Your task to perform on an android device: change your default location settings in chrome Image 0: 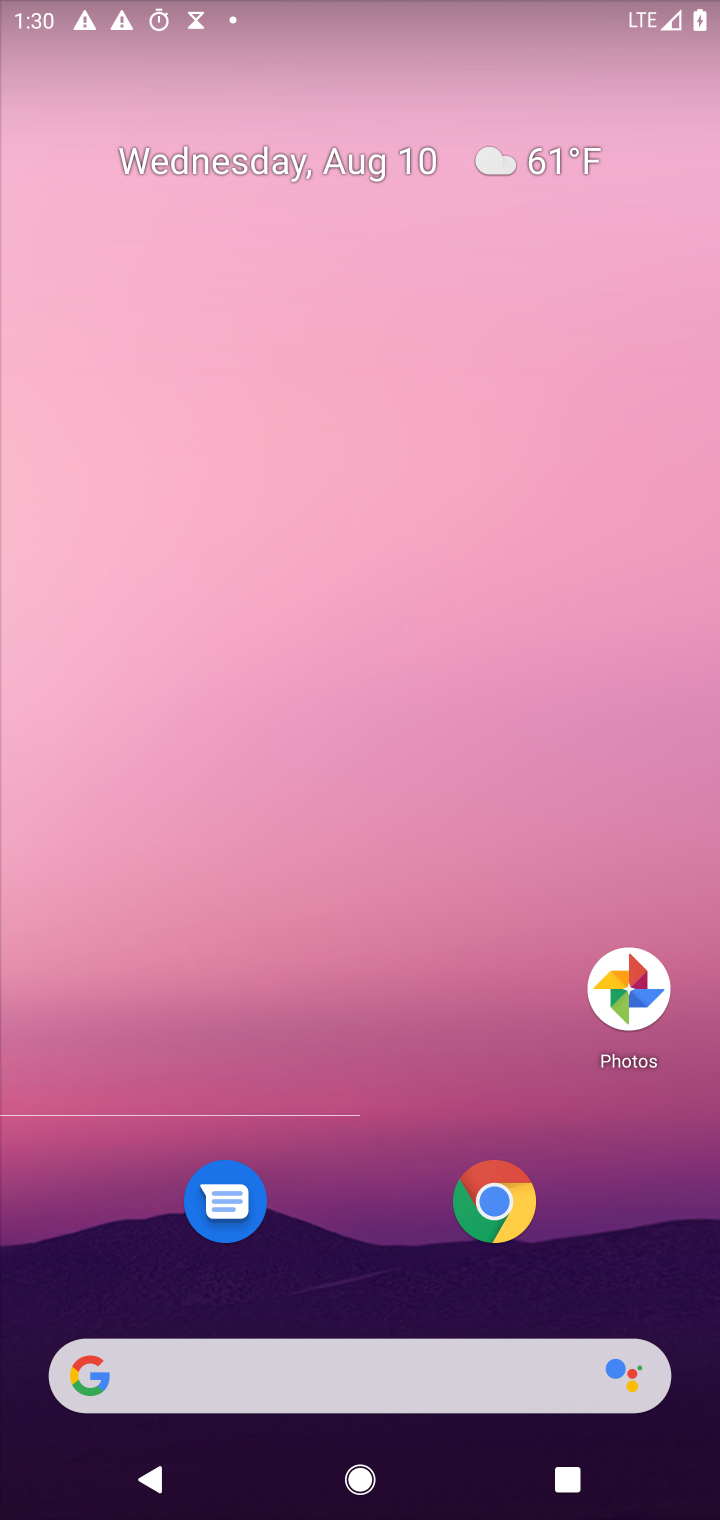
Step 0: press home button
Your task to perform on an android device: change your default location settings in chrome Image 1: 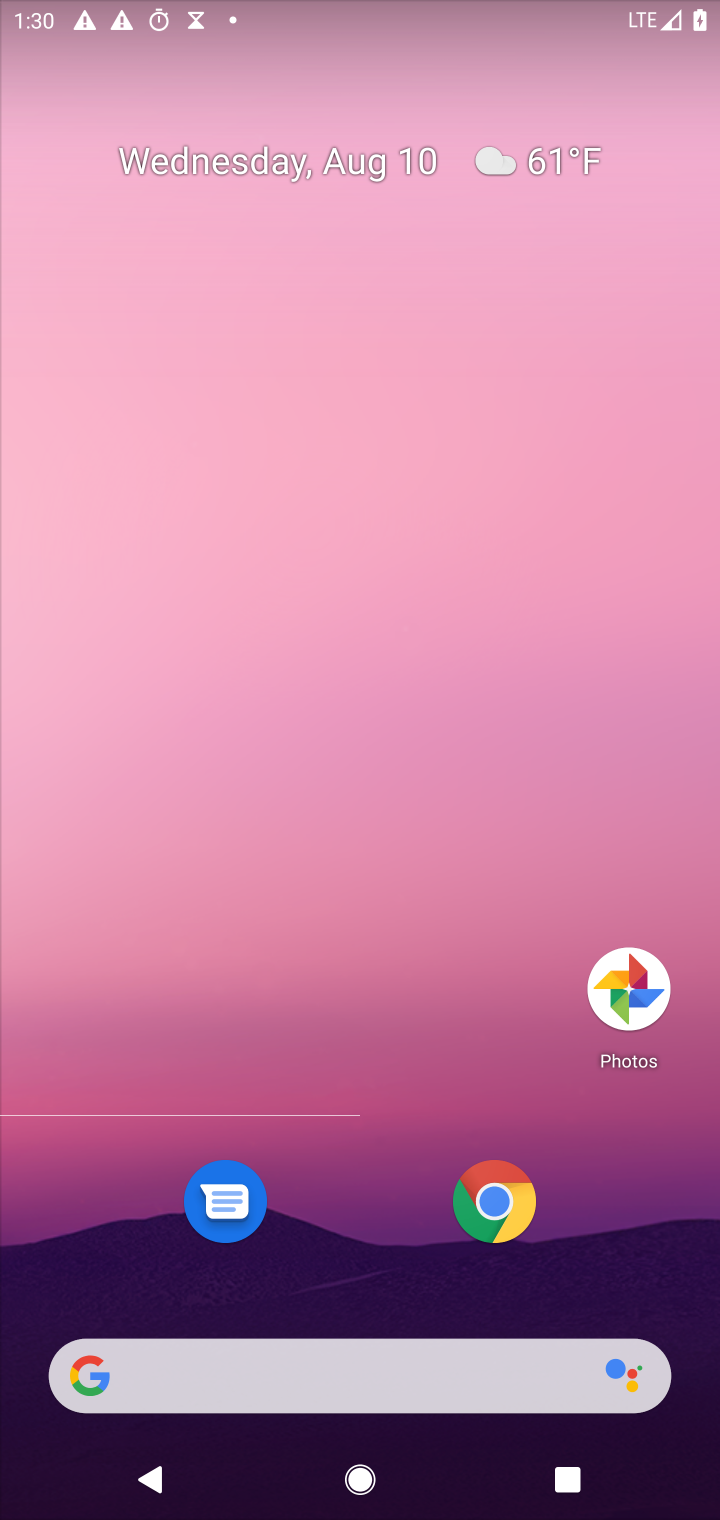
Step 1: click (498, 1198)
Your task to perform on an android device: change your default location settings in chrome Image 2: 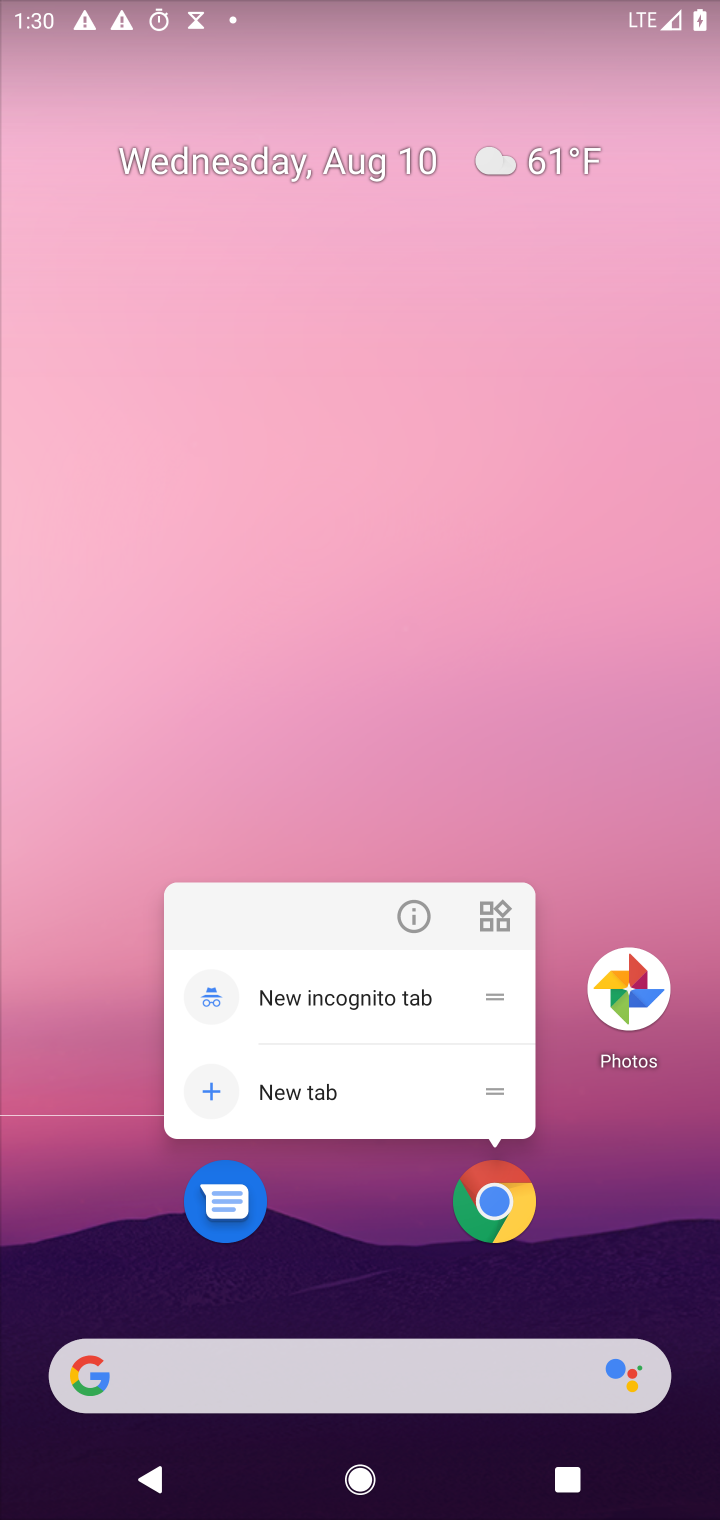
Step 2: click (498, 1198)
Your task to perform on an android device: change your default location settings in chrome Image 3: 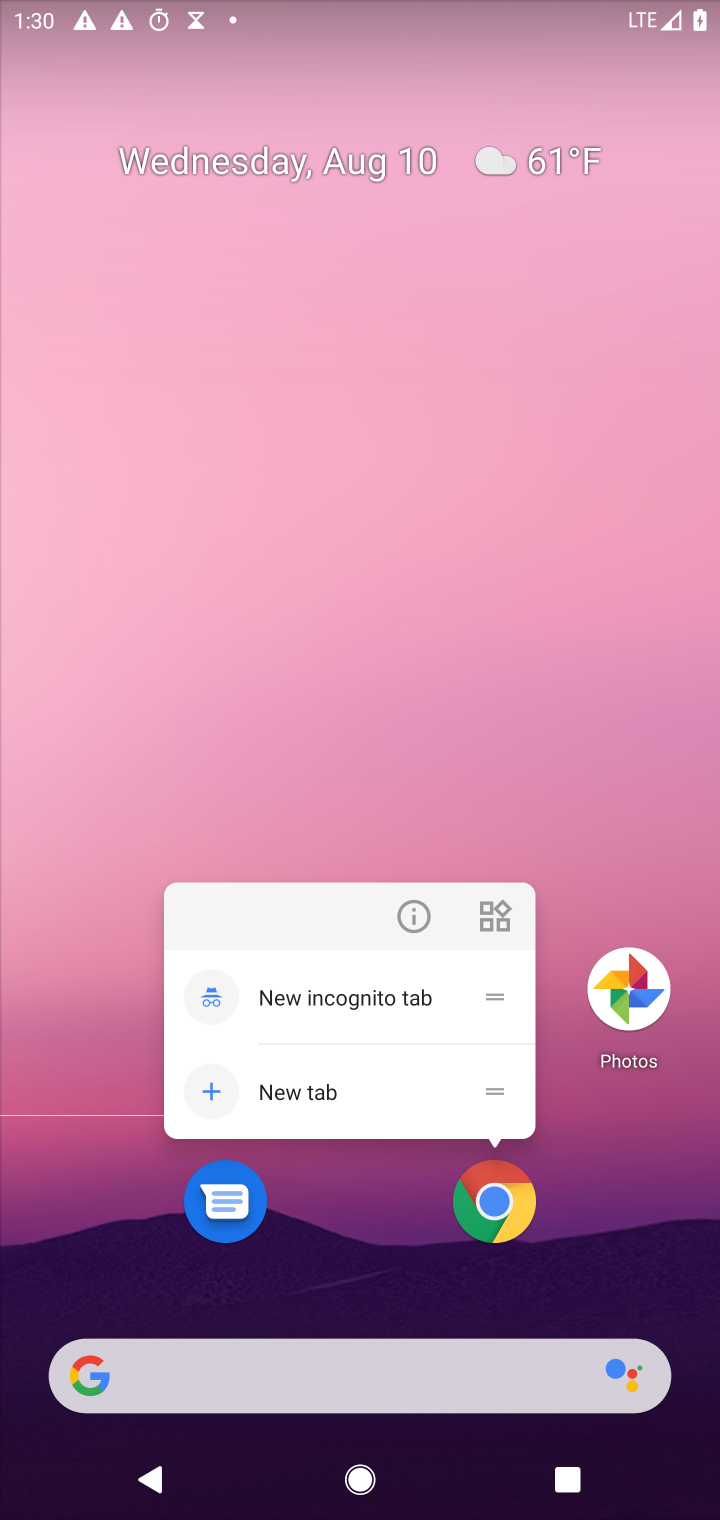
Step 3: click (498, 1198)
Your task to perform on an android device: change your default location settings in chrome Image 4: 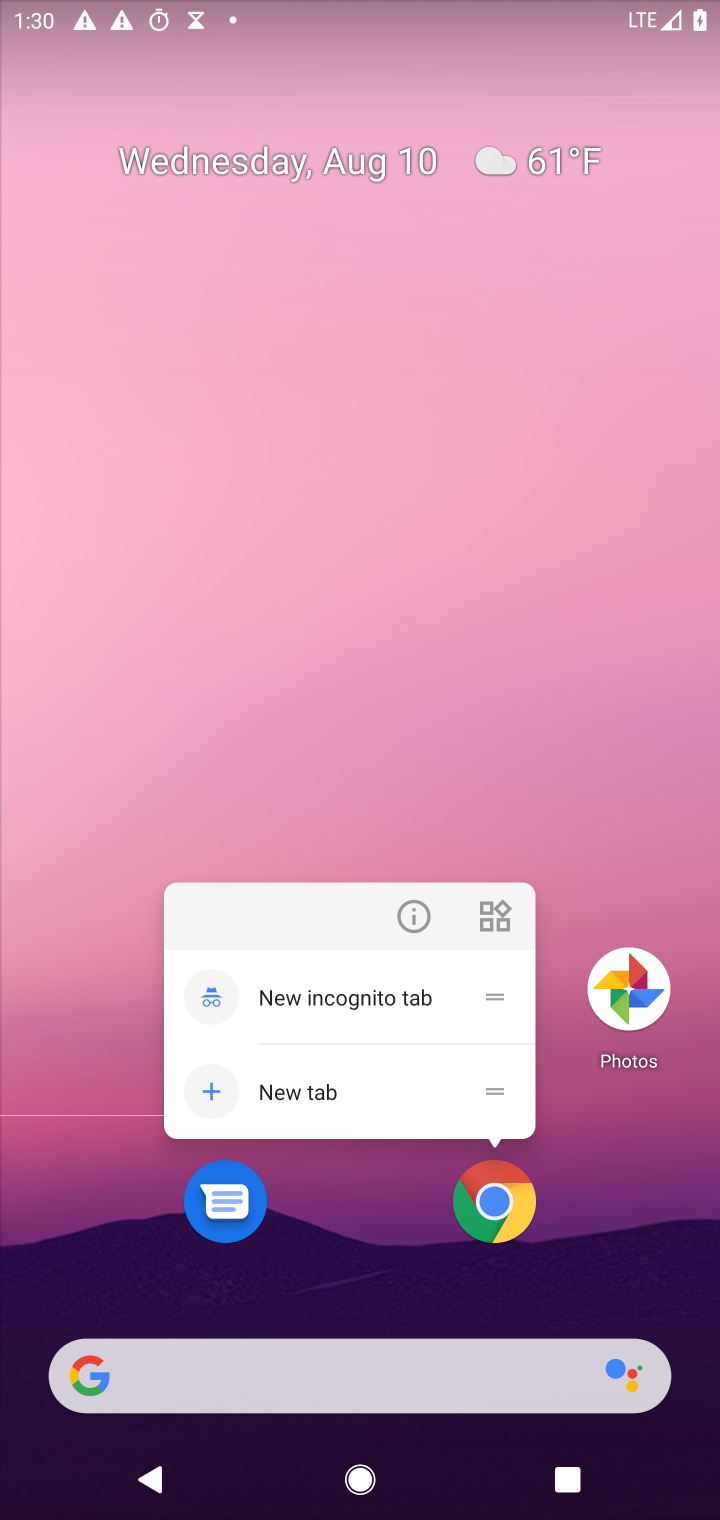
Step 4: click (495, 1216)
Your task to perform on an android device: change your default location settings in chrome Image 5: 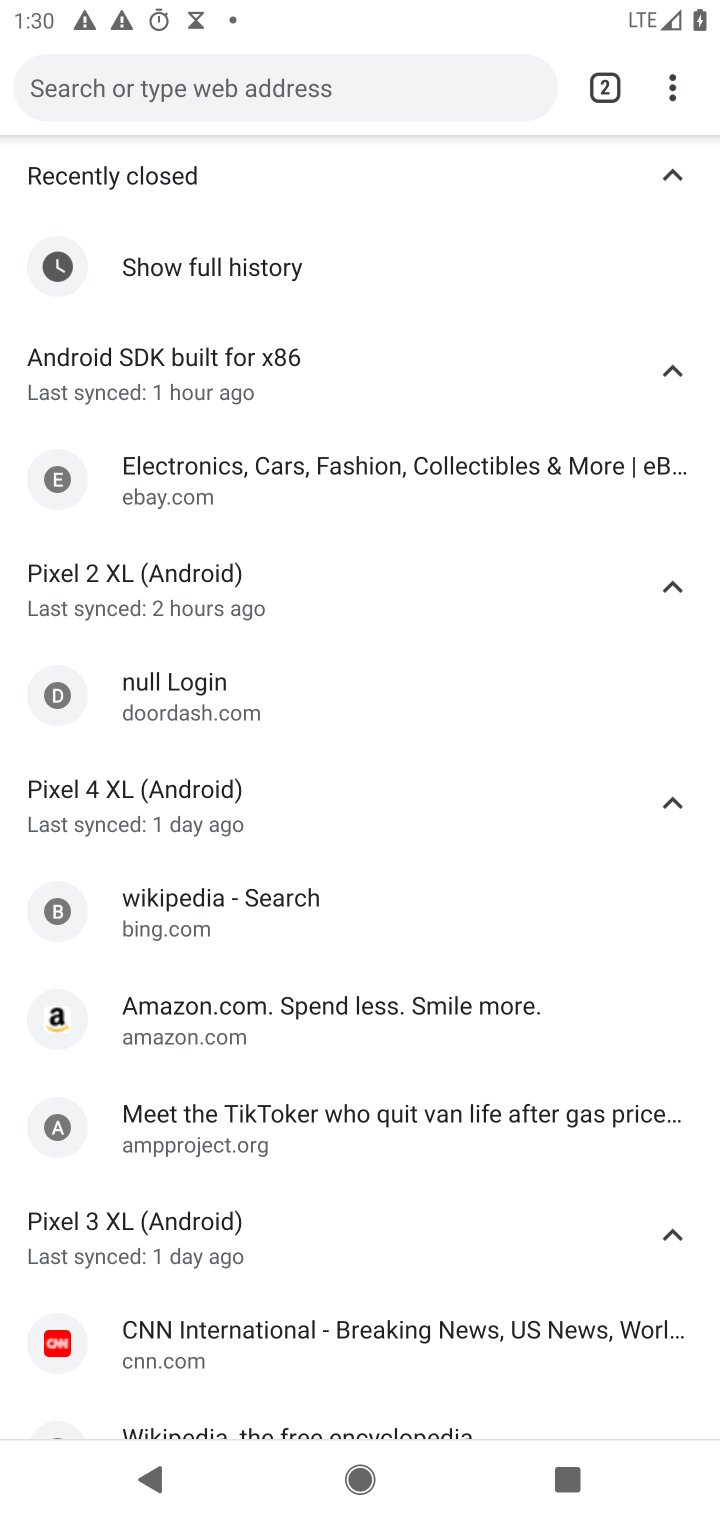
Step 5: drag from (672, 80) to (347, 746)
Your task to perform on an android device: change your default location settings in chrome Image 6: 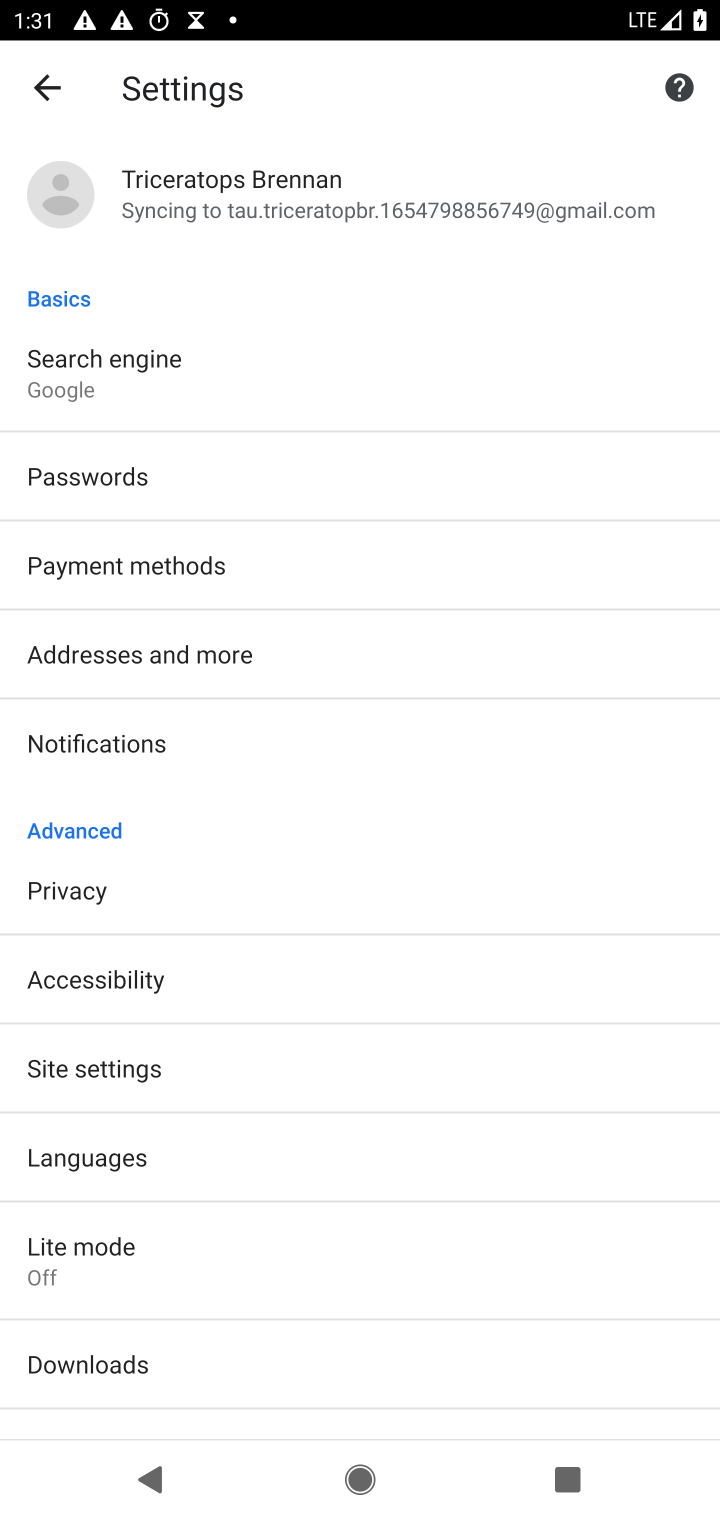
Step 6: click (75, 1063)
Your task to perform on an android device: change your default location settings in chrome Image 7: 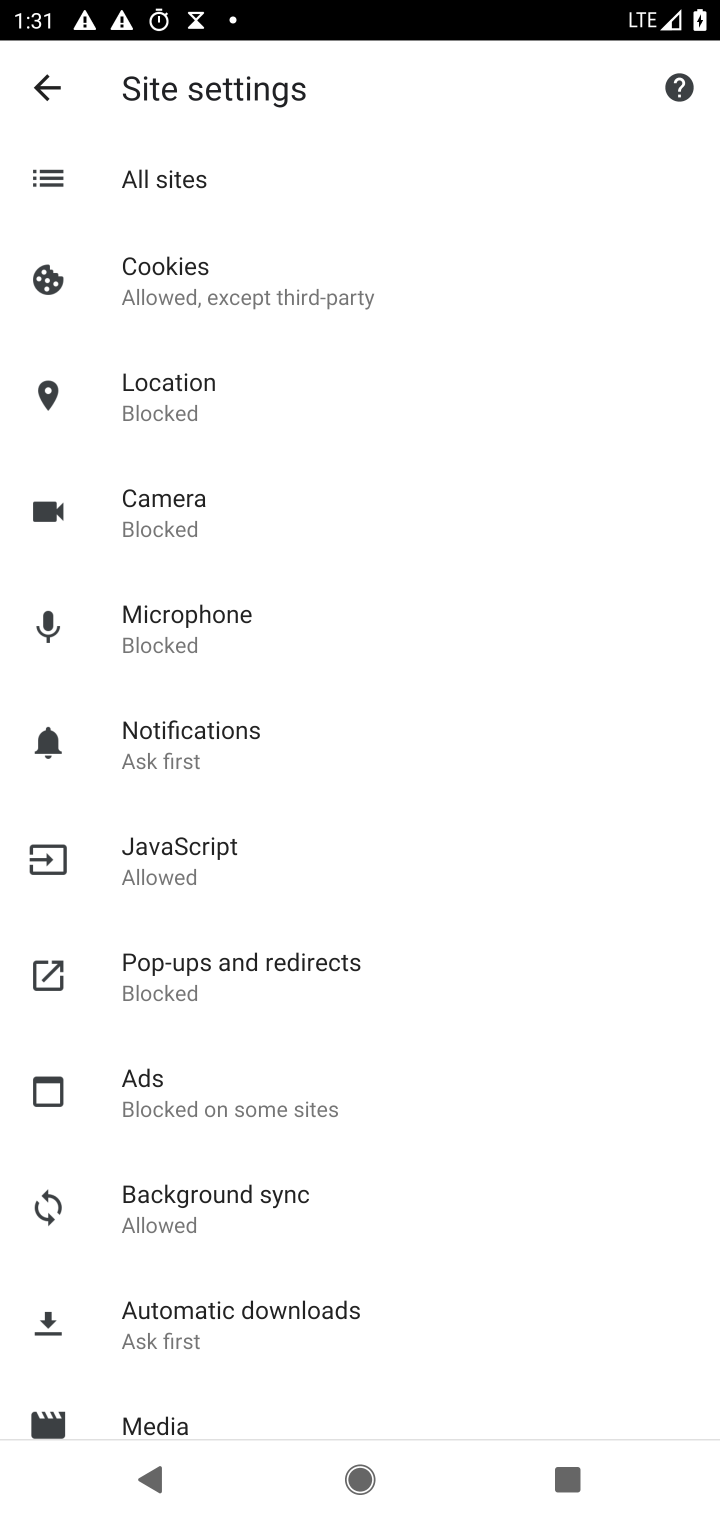
Step 7: click (154, 378)
Your task to perform on an android device: change your default location settings in chrome Image 8: 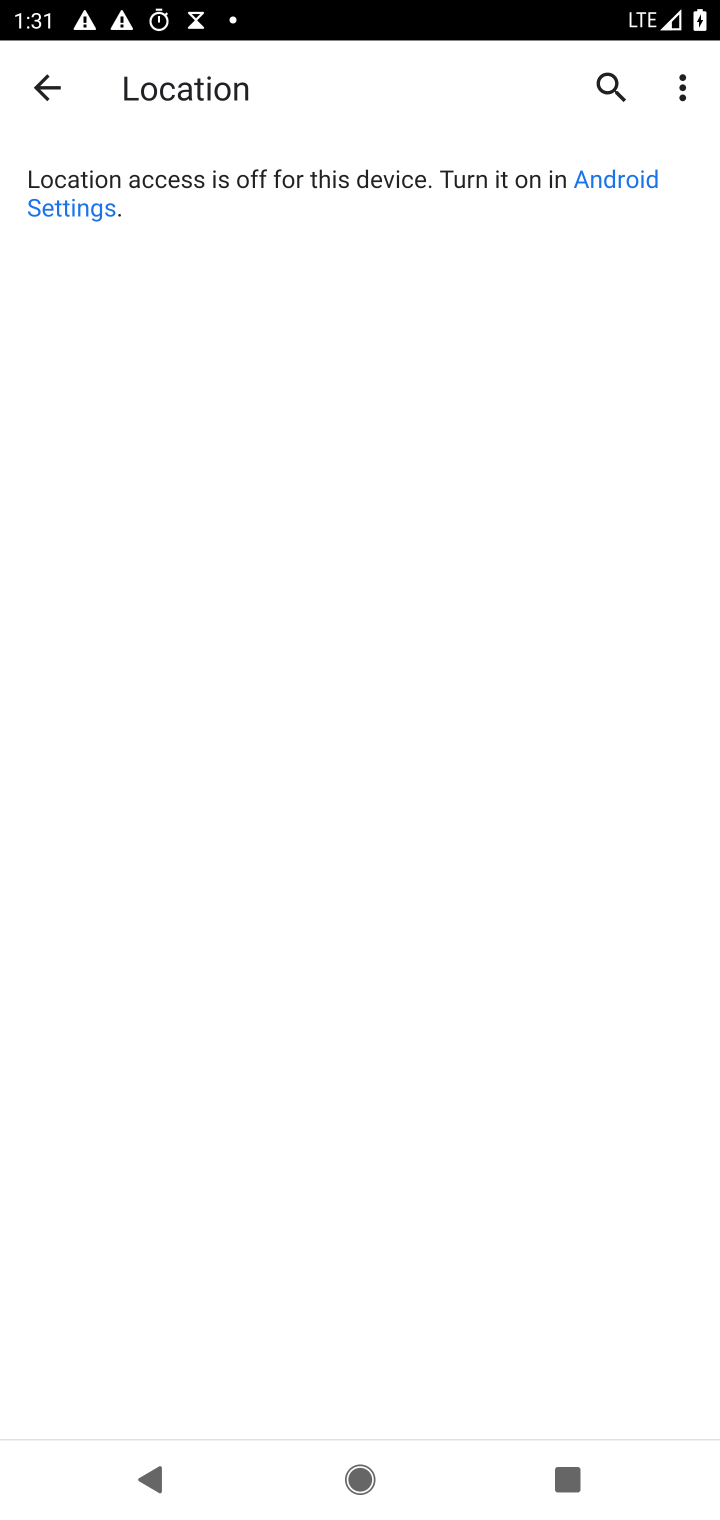
Step 8: click (617, 169)
Your task to perform on an android device: change your default location settings in chrome Image 9: 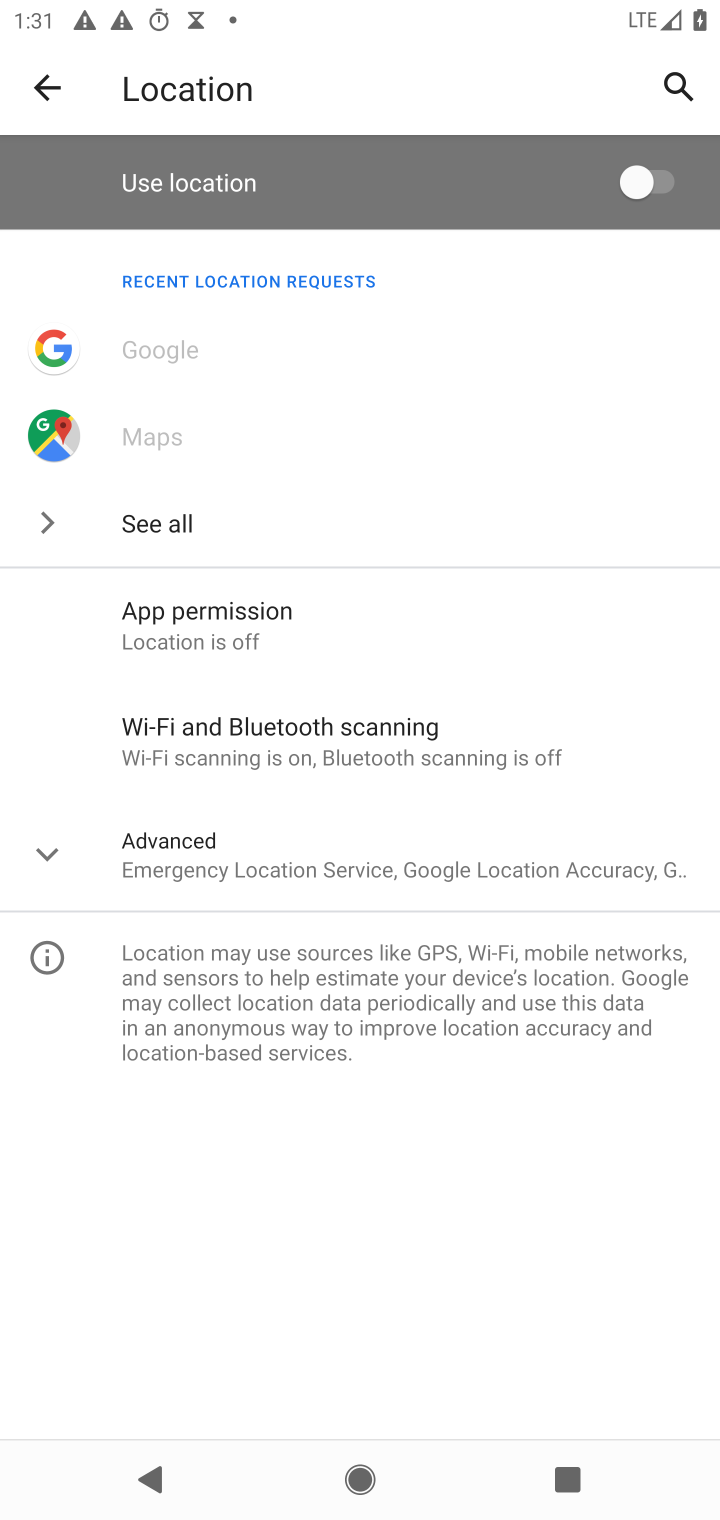
Step 9: click (649, 176)
Your task to perform on an android device: change your default location settings in chrome Image 10: 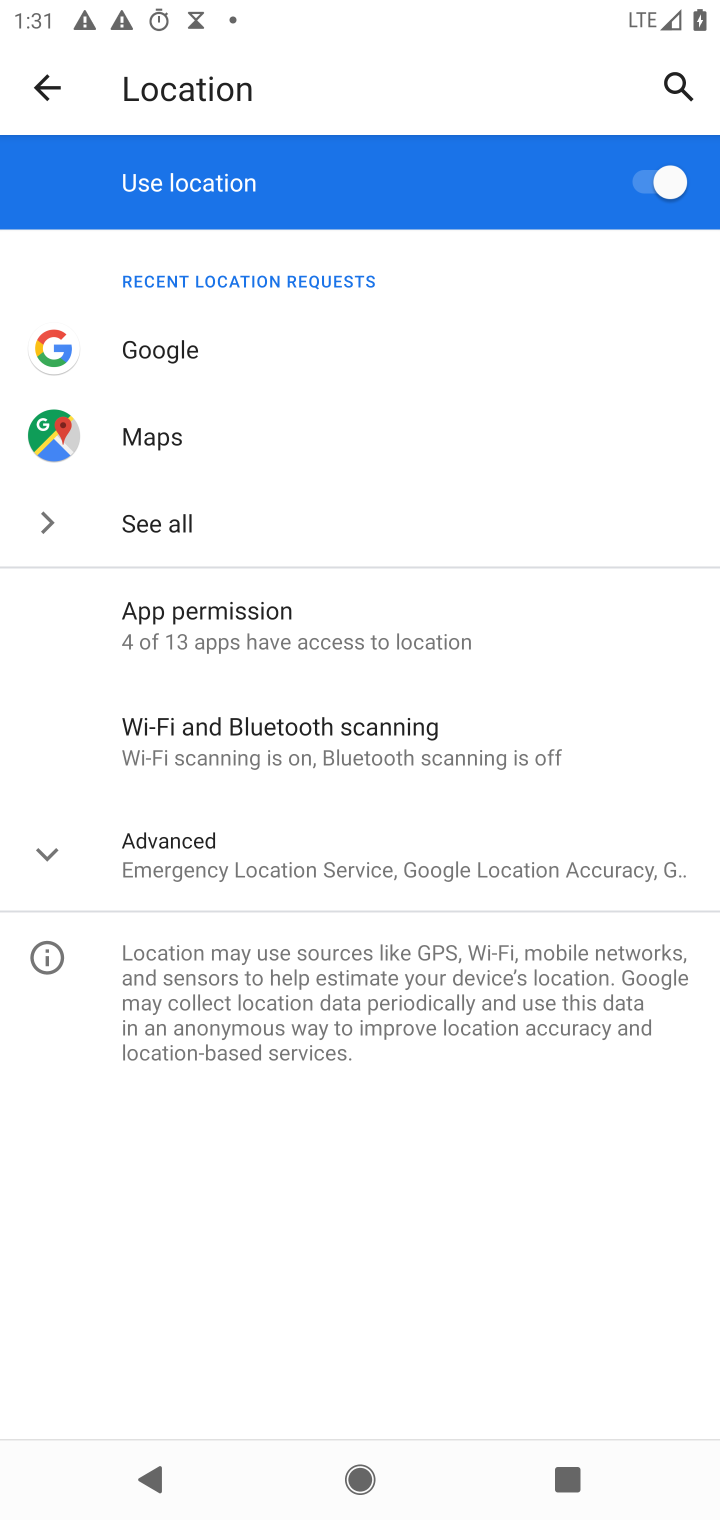
Step 10: task complete